Your task to perform on an android device: Go to display settings Image 0: 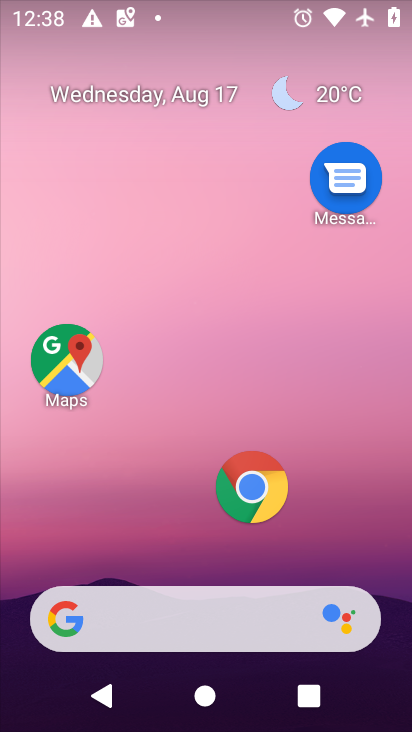
Step 0: drag from (150, 491) to (244, 22)
Your task to perform on an android device: Go to display settings Image 1: 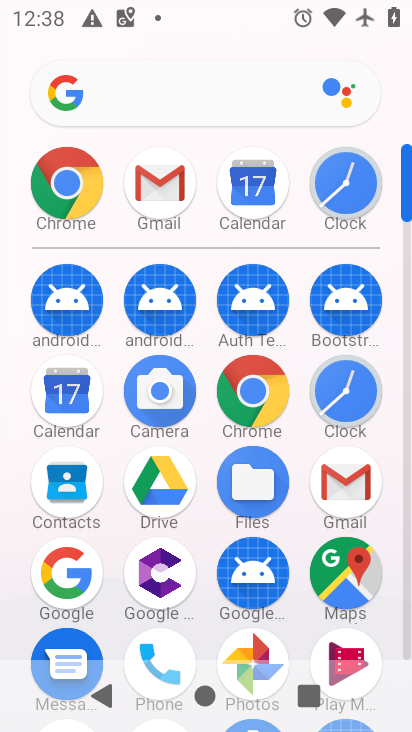
Step 1: drag from (207, 558) to (304, 6)
Your task to perform on an android device: Go to display settings Image 2: 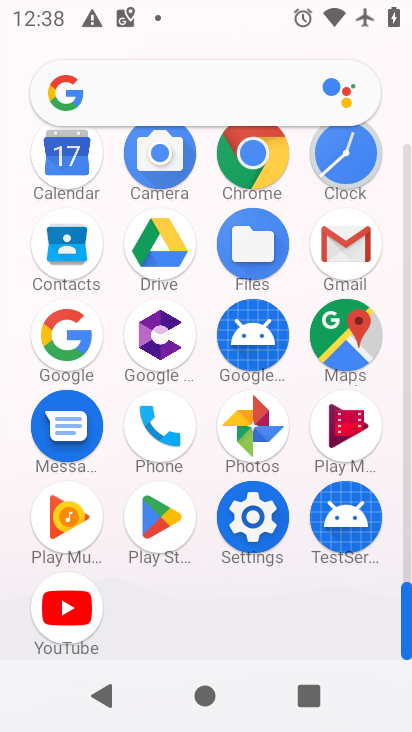
Step 2: click (263, 521)
Your task to perform on an android device: Go to display settings Image 3: 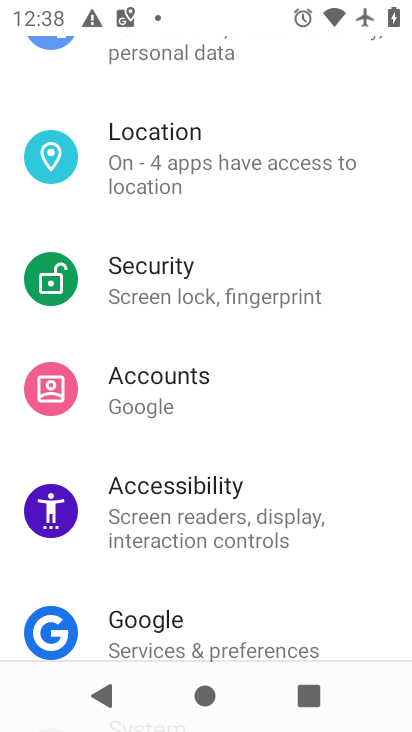
Step 3: drag from (318, 184) to (172, 700)
Your task to perform on an android device: Go to display settings Image 4: 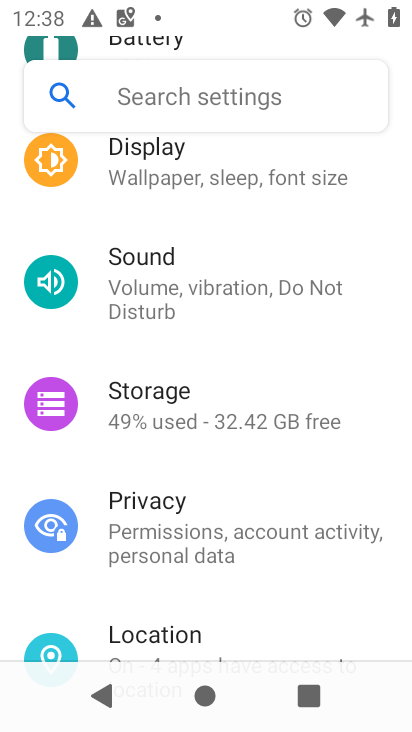
Step 4: click (179, 156)
Your task to perform on an android device: Go to display settings Image 5: 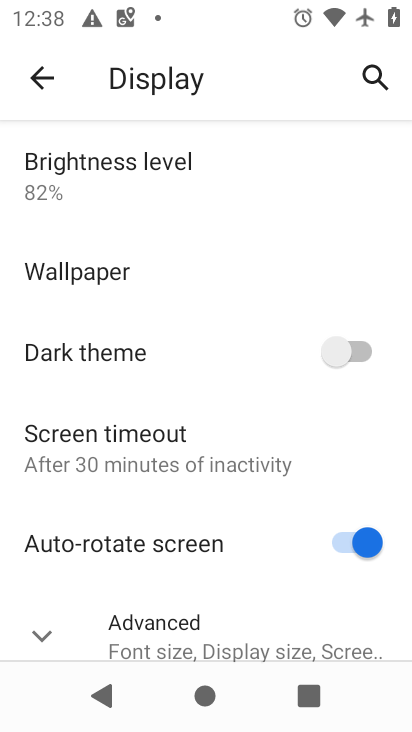
Step 5: task complete